Your task to perform on an android device: open app "Google Drive" Image 0: 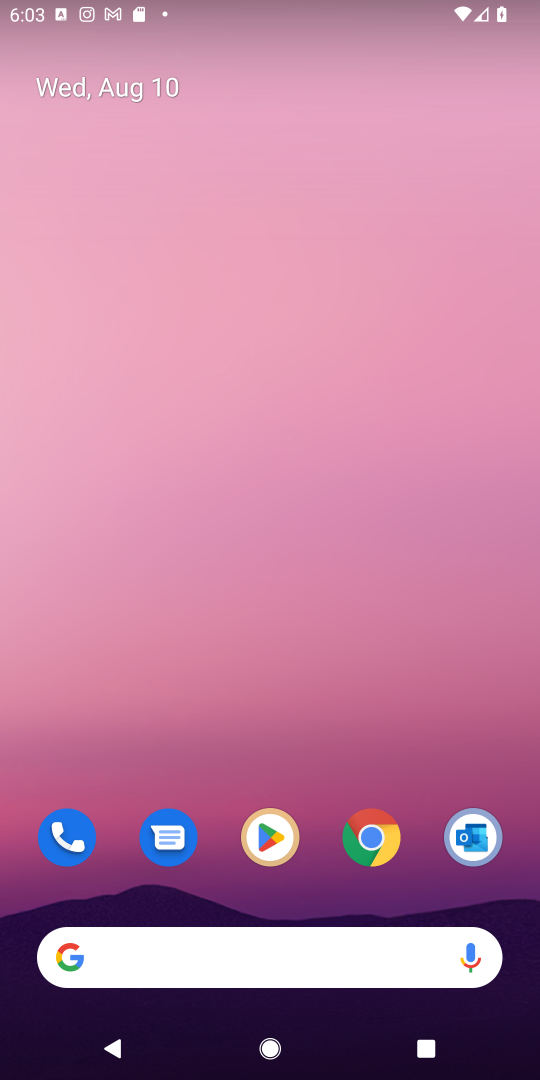
Step 0: click (271, 840)
Your task to perform on an android device: open app "Google Drive" Image 1: 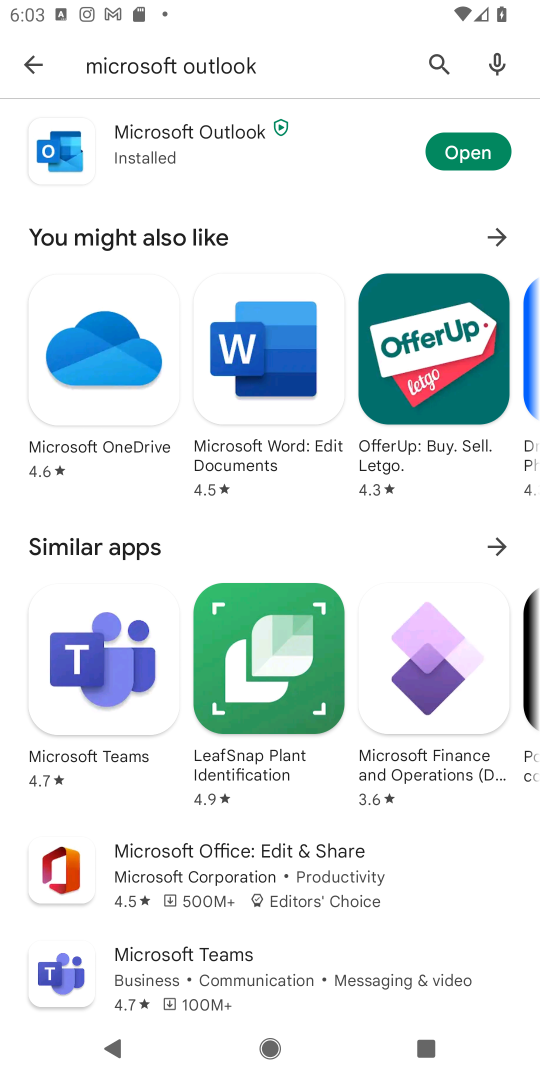
Step 1: click (436, 60)
Your task to perform on an android device: open app "Google Drive" Image 2: 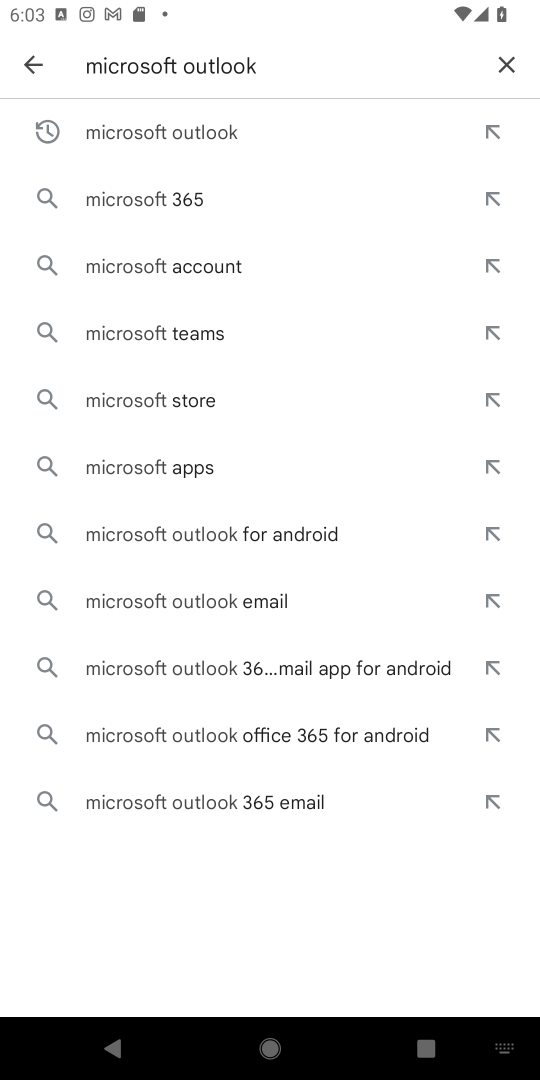
Step 2: click (504, 52)
Your task to perform on an android device: open app "Google Drive" Image 3: 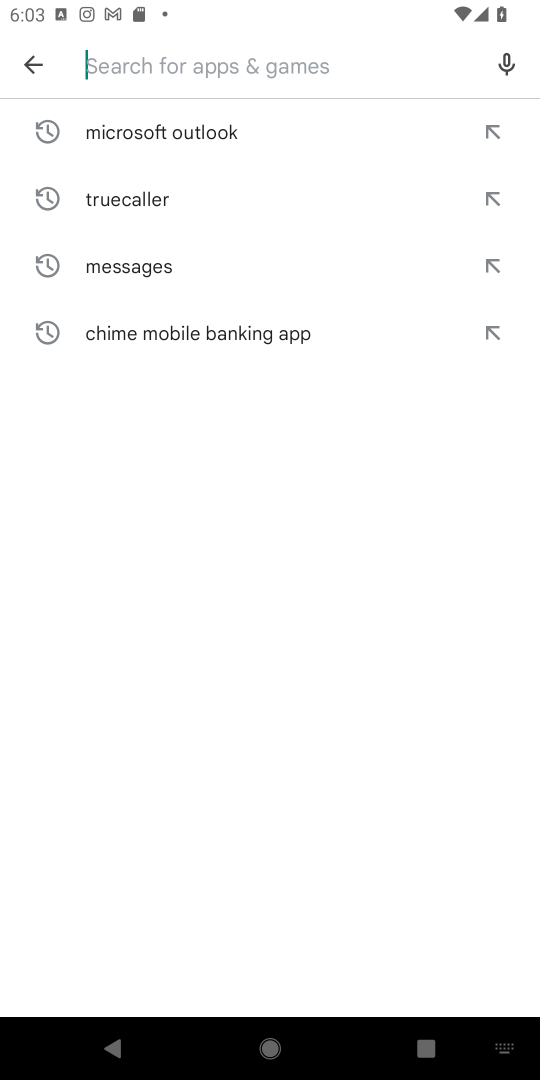
Step 3: type "Google Drive"
Your task to perform on an android device: open app "Google Drive" Image 4: 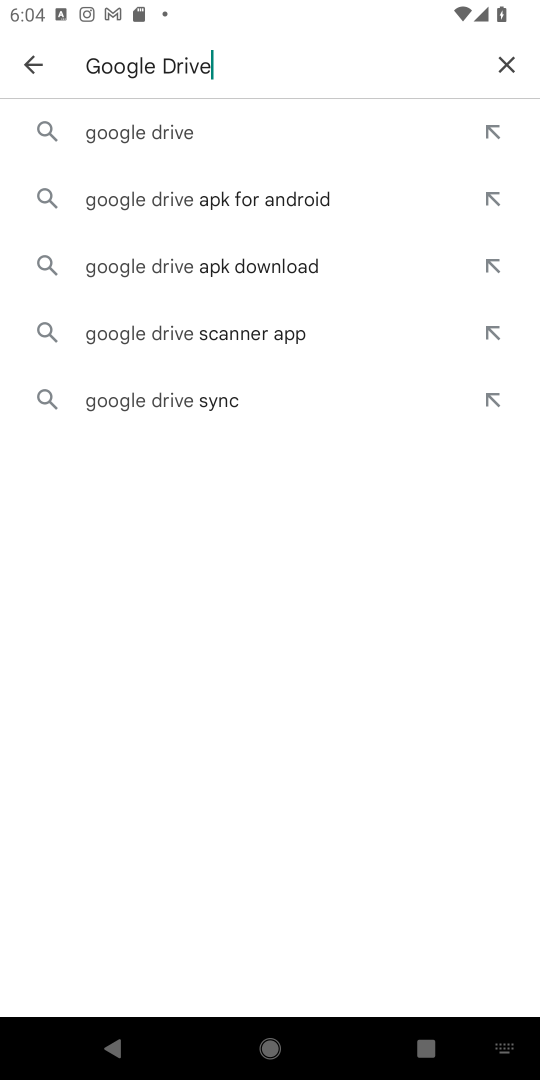
Step 4: click (167, 128)
Your task to perform on an android device: open app "Google Drive" Image 5: 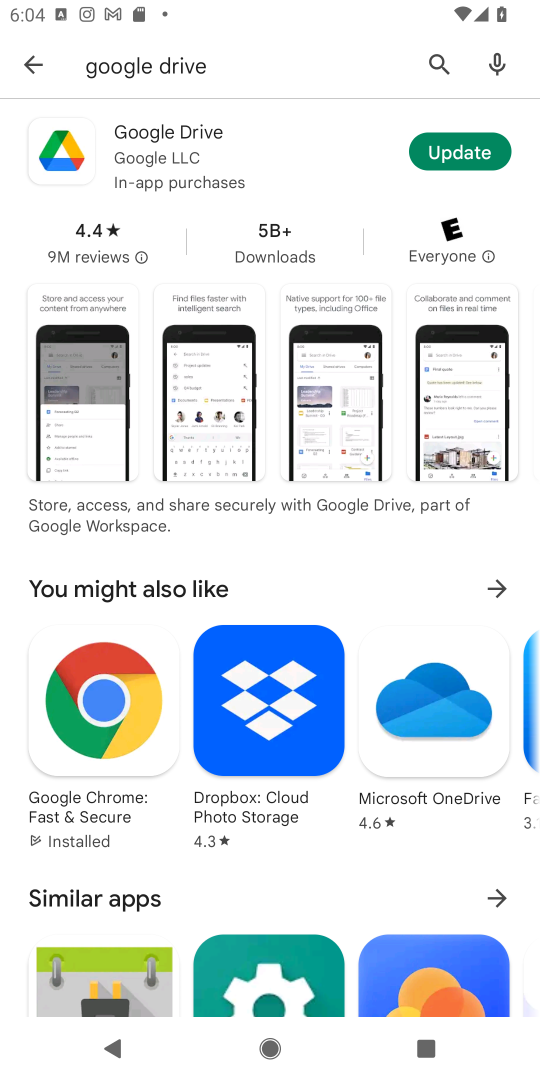
Step 5: click (181, 145)
Your task to perform on an android device: open app "Google Drive" Image 6: 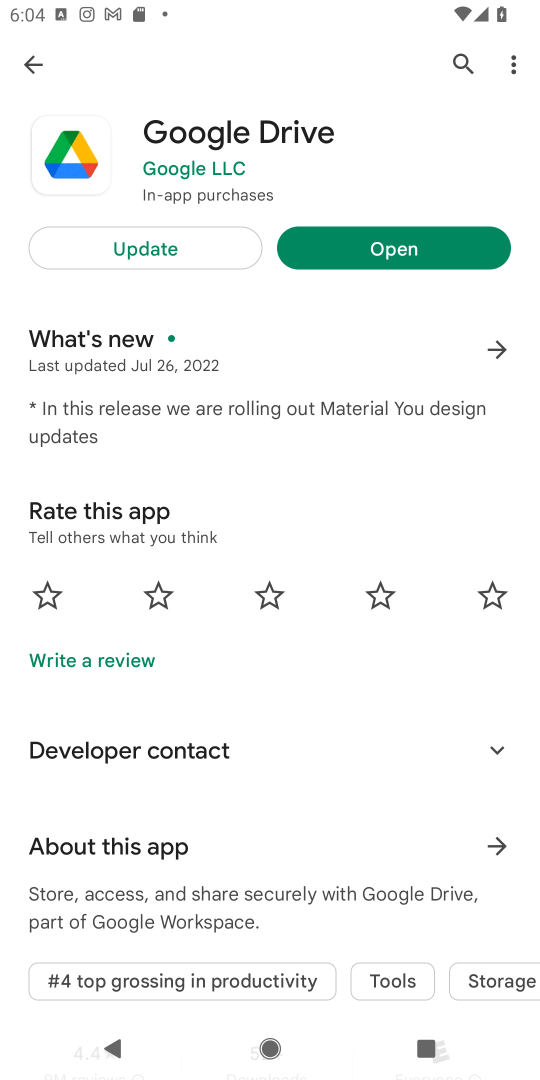
Step 6: click (419, 247)
Your task to perform on an android device: open app "Google Drive" Image 7: 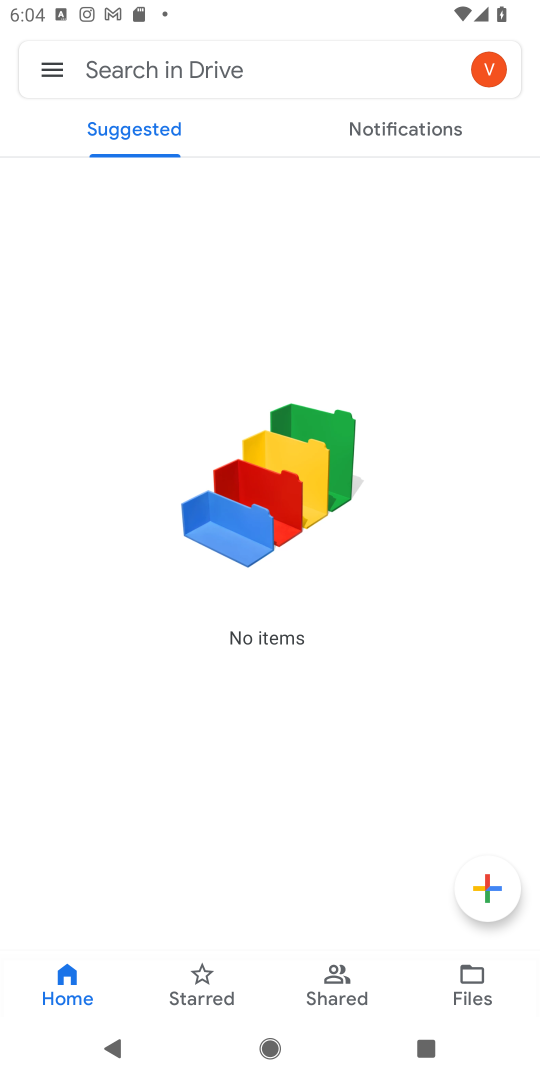
Step 7: task complete